Your task to perform on an android device: Open my contact list Image 0: 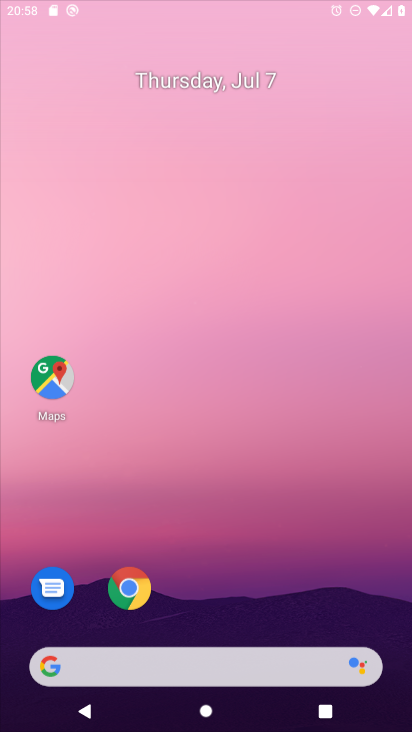
Step 0: drag from (268, 511) to (266, 301)
Your task to perform on an android device: Open my contact list Image 1: 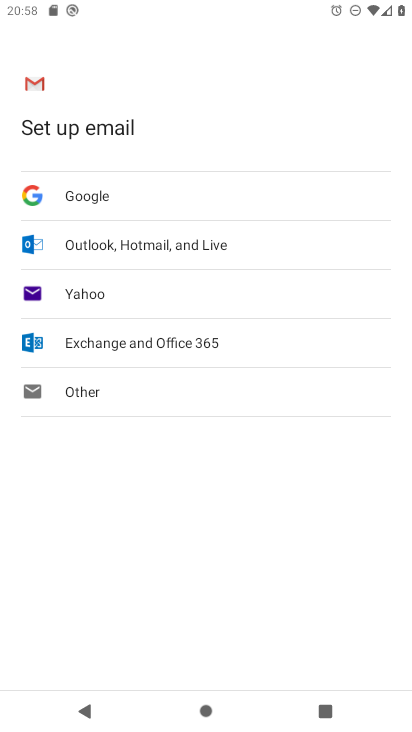
Step 1: press home button
Your task to perform on an android device: Open my contact list Image 2: 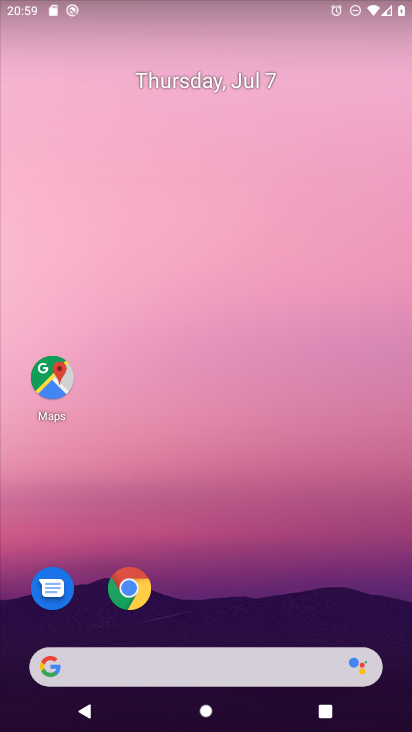
Step 2: drag from (217, 596) to (214, 246)
Your task to perform on an android device: Open my contact list Image 3: 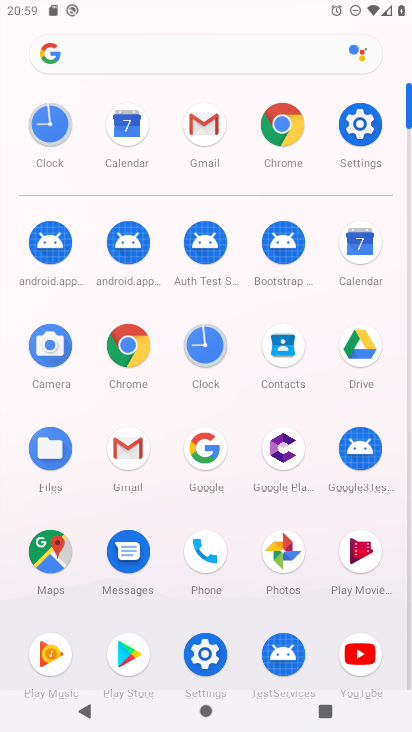
Step 3: click (196, 544)
Your task to perform on an android device: Open my contact list Image 4: 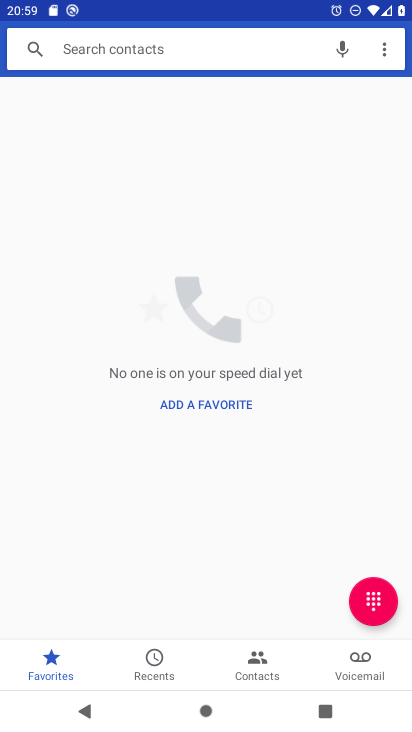
Step 4: click (268, 670)
Your task to perform on an android device: Open my contact list Image 5: 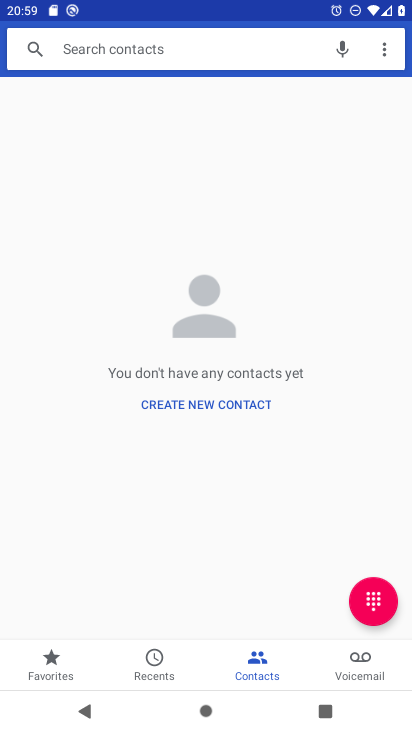
Step 5: task complete